Your task to perform on an android device: open app "ColorNote Notepad Notes" (install if not already installed), go to login, and select forgot password Image 0: 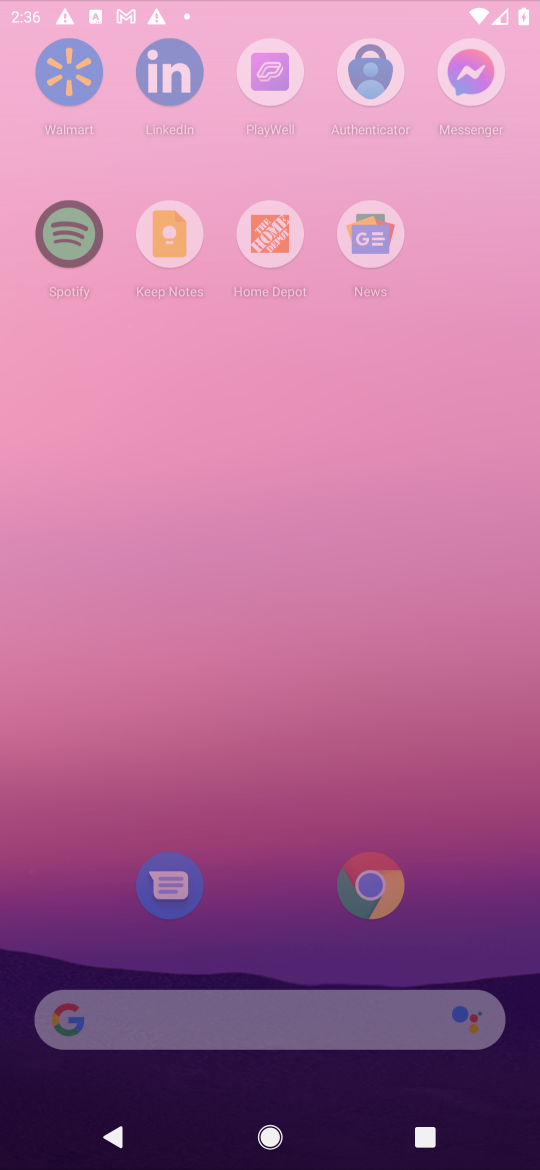
Step 0: press home button
Your task to perform on an android device: open app "ColorNote Notepad Notes" (install if not already installed), go to login, and select forgot password Image 1: 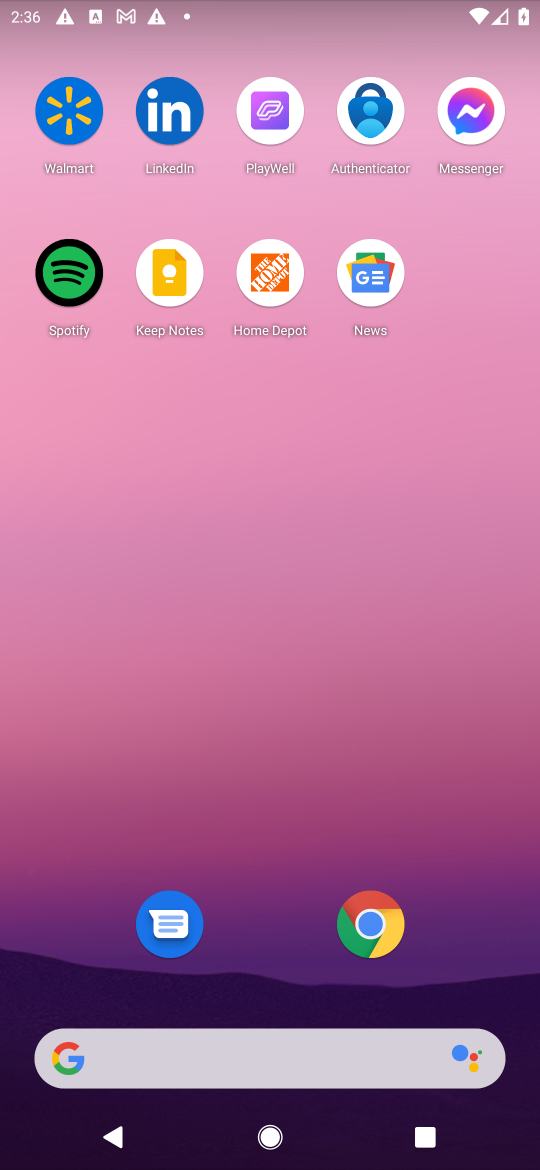
Step 1: drag from (479, 895) to (483, 203)
Your task to perform on an android device: open app "ColorNote Notepad Notes" (install if not already installed), go to login, and select forgot password Image 2: 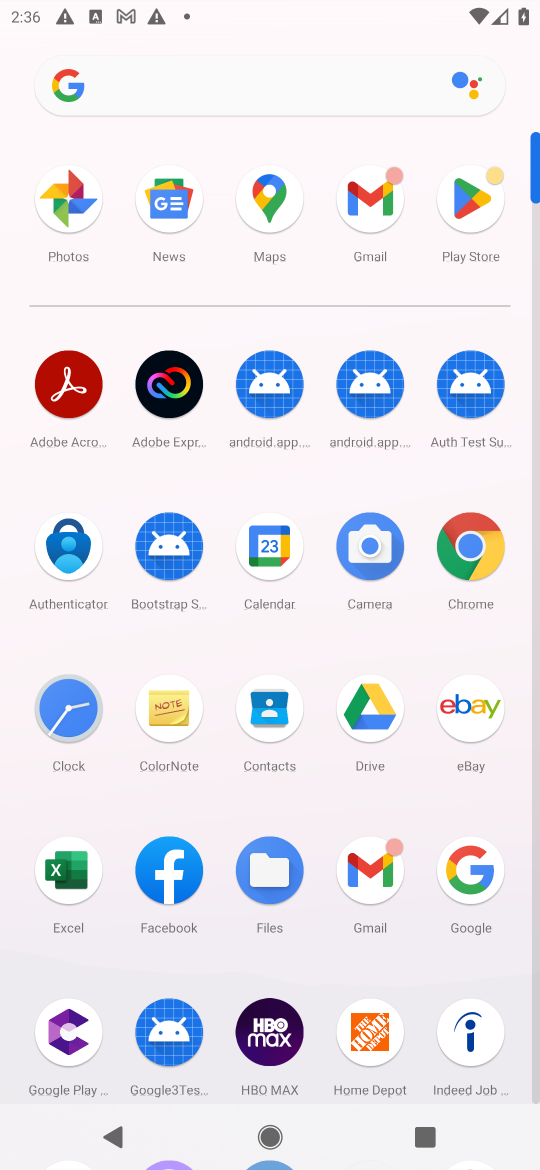
Step 2: click (484, 179)
Your task to perform on an android device: open app "ColorNote Notepad Notes" (install if not already installed), go to login, and select forgot password Image 3: 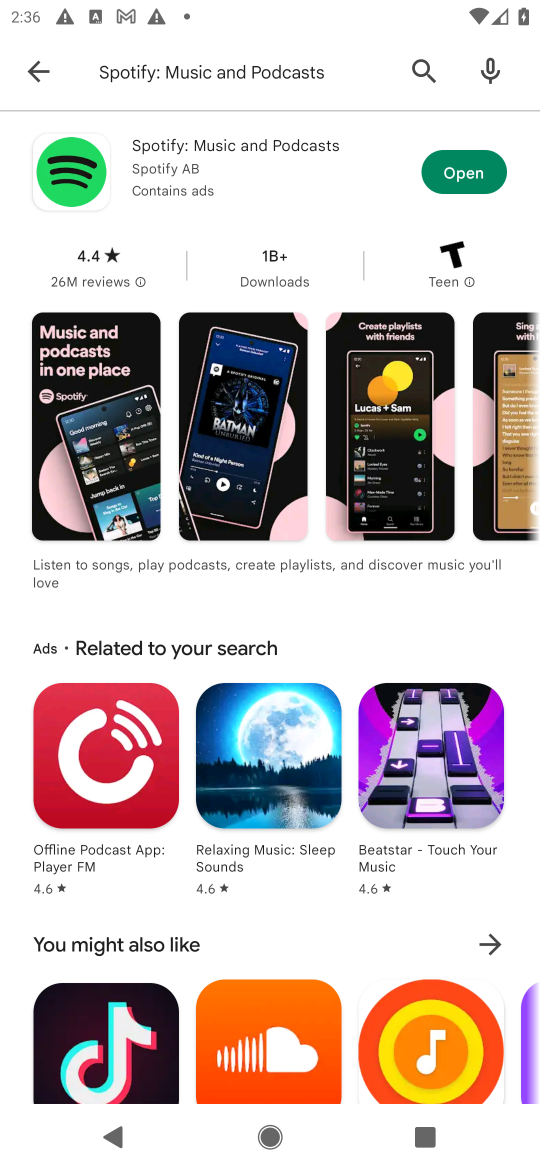
Step 3: press back button
Your task to perform on an android device: open app "ColorNote Notepad Notes" (install if not already installed), go to login, and select forgot password Image 4: 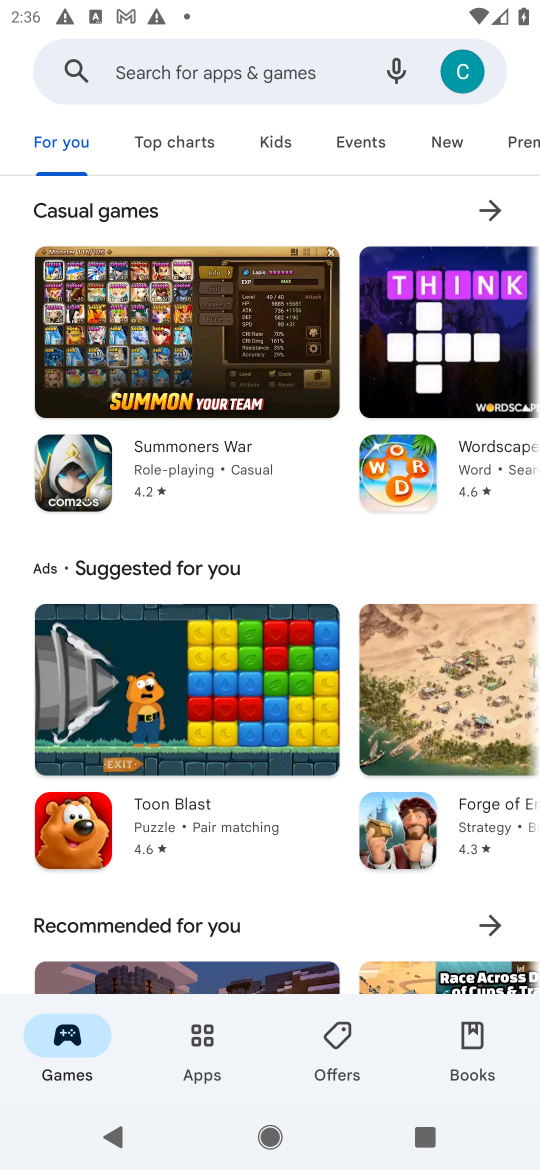
Step 4: click (181, 68)
Your task to perform on an android device: open app "ColorNote Notepad Notes" (install if not already installed), go to login, and select forgot password Image 5: 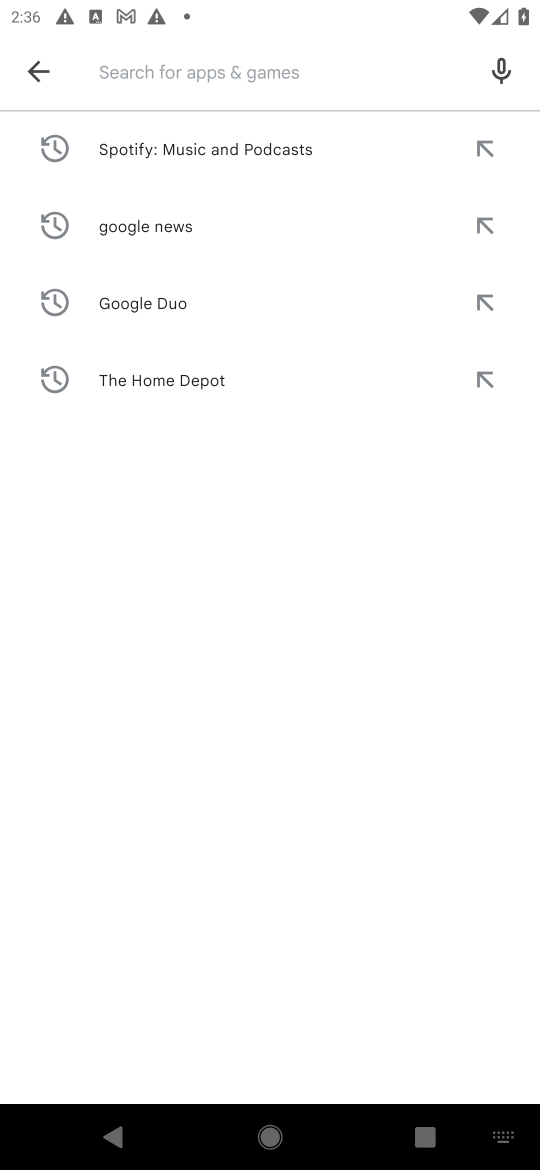
Step 5: type "ColorNote Notepad Notes"
Your task to perform on an android device: open app "ColorNote Notepad Notes" (install if not already installed), go to login, and select forgot password Image 6: 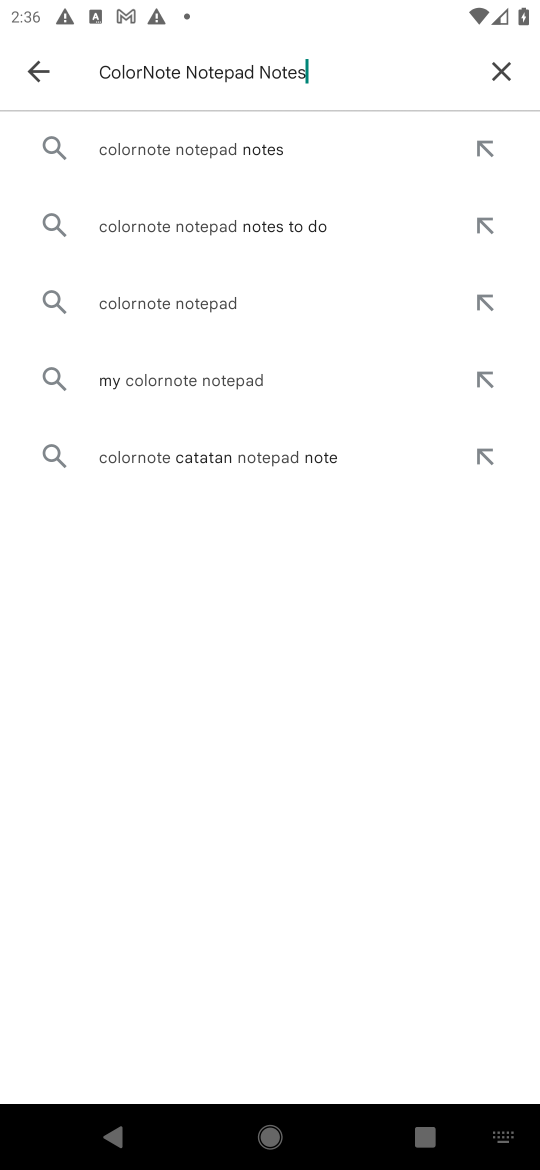
Step 6: press enter
Your task to perform on an android device: open app "ColorNote Notepad Notes" (install if not already installed), go to login, and select forgot password Image 7: 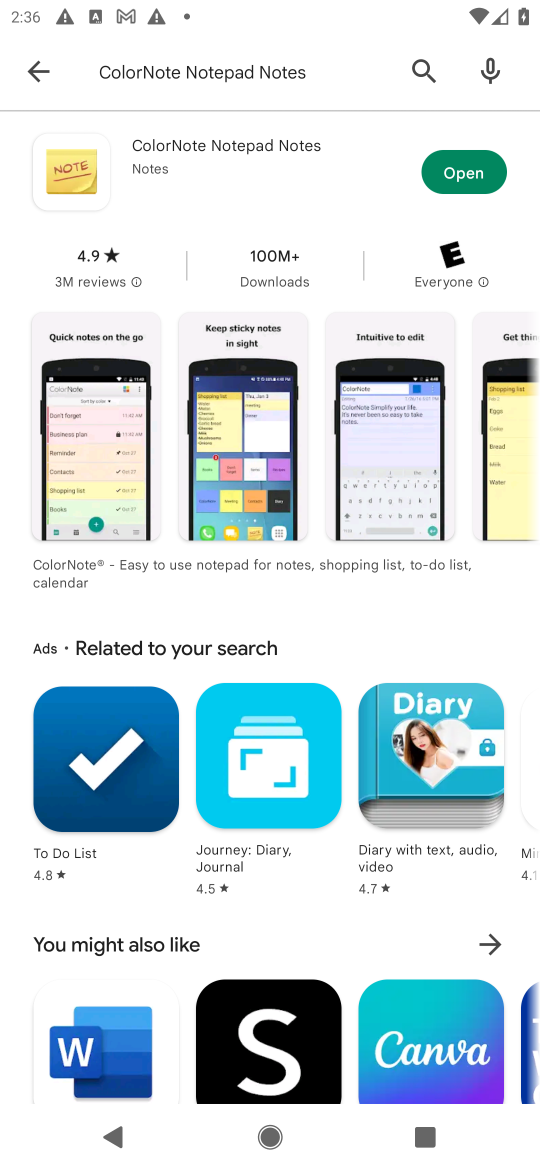
Step 7: click (475, 171)
Your task to perform on an android device: open app "ColorNote Notepad Notes" (install if not already installed), go to login, and select forgot password Image 8: 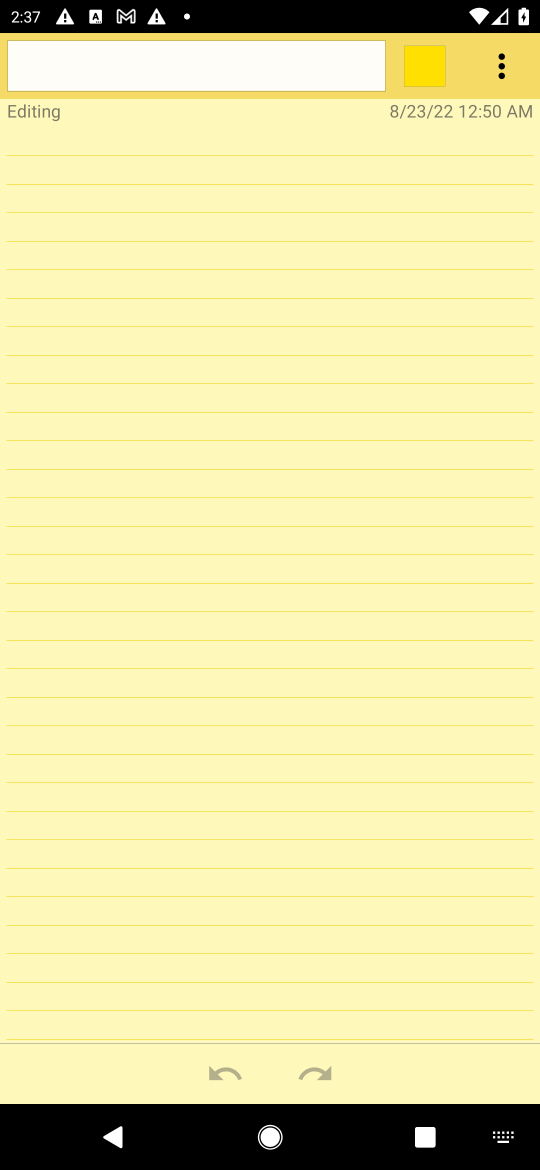
Step 8: task complete